Your task to perform on an android device: turn on sleep mode Image 0: 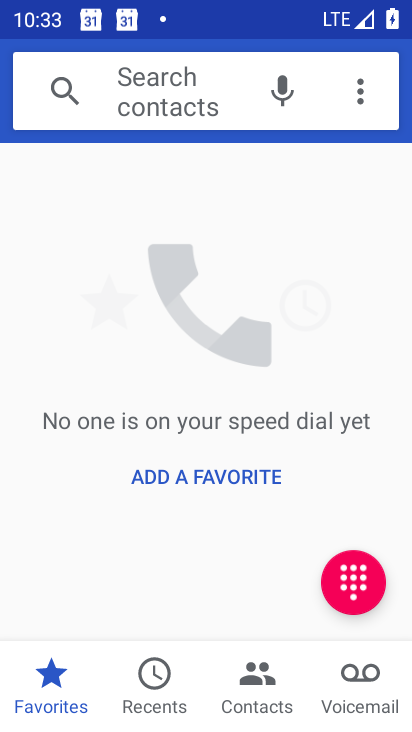
Step 0: press home button
Your task to perform on an android device: turn on sleep mode Image 1: 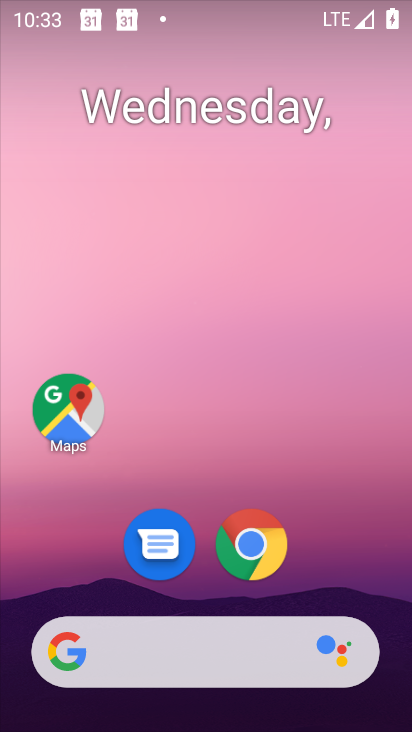
Step 1: drag from (298, 588) to (276, 169)
Your task to perform on an android device: turn on sleep mode Image 2: 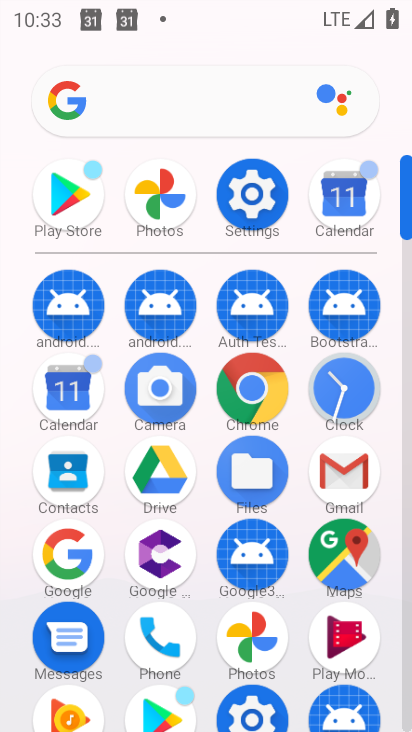
Step 2: click (248, 219)
Your task to perform on an android device: turn on sleep mode Image 3: 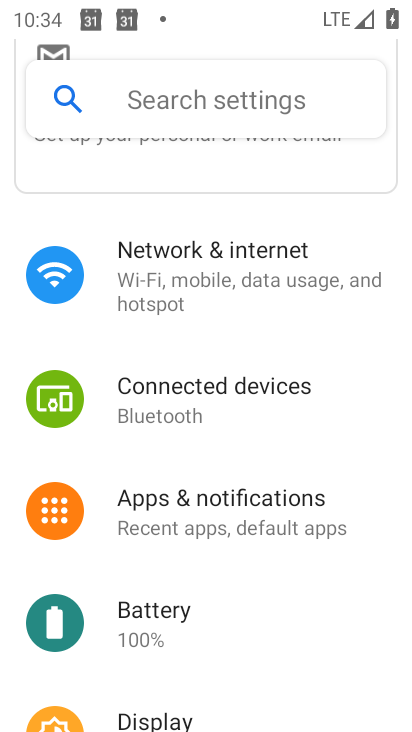
Step 3: drag from (162, 428) to (162, 243)
Your task to perform on an android device: turn on sleep mode Image 4: 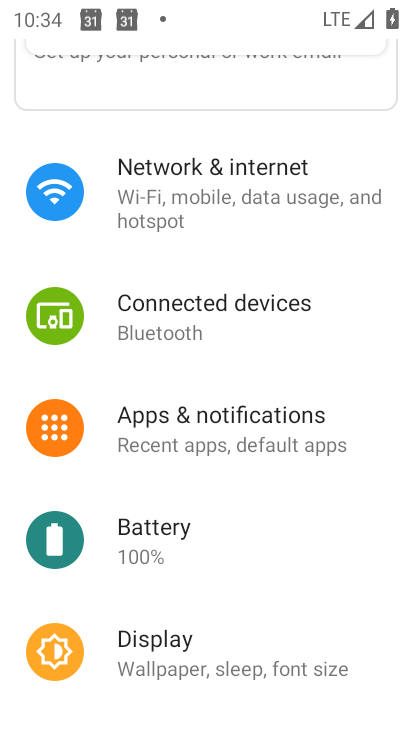
Step 4: click (134, 658)
Your task to perform on an android device: turn on sleep mode Image 5: 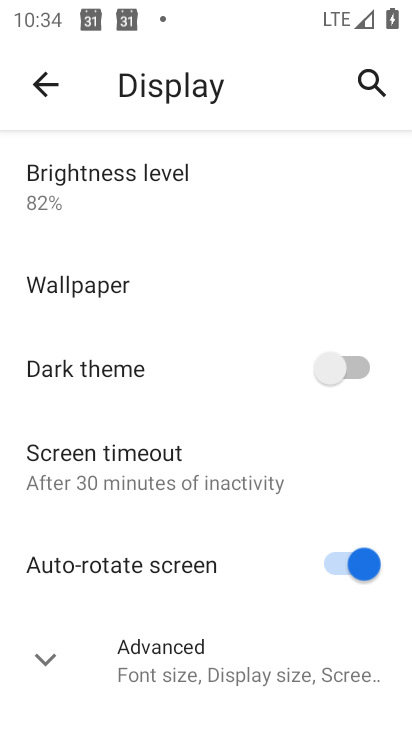
Step 5: click (134, 658)
Your task to perform on an android device: turn on sleep mode Image 6: 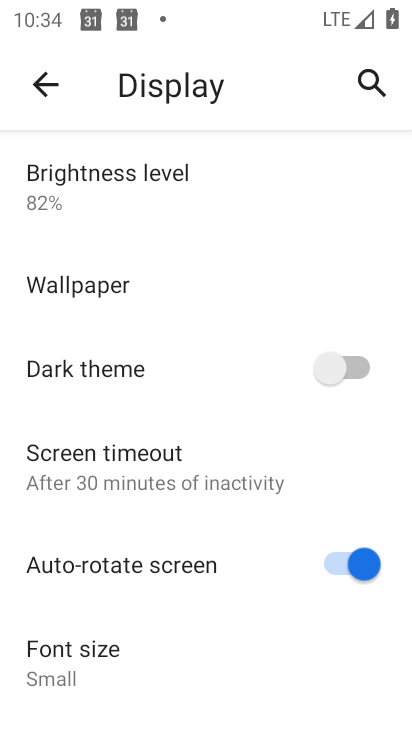
Step 6: task complete